Your task to perform on an android device: uninstall "File Manager" Image 0: 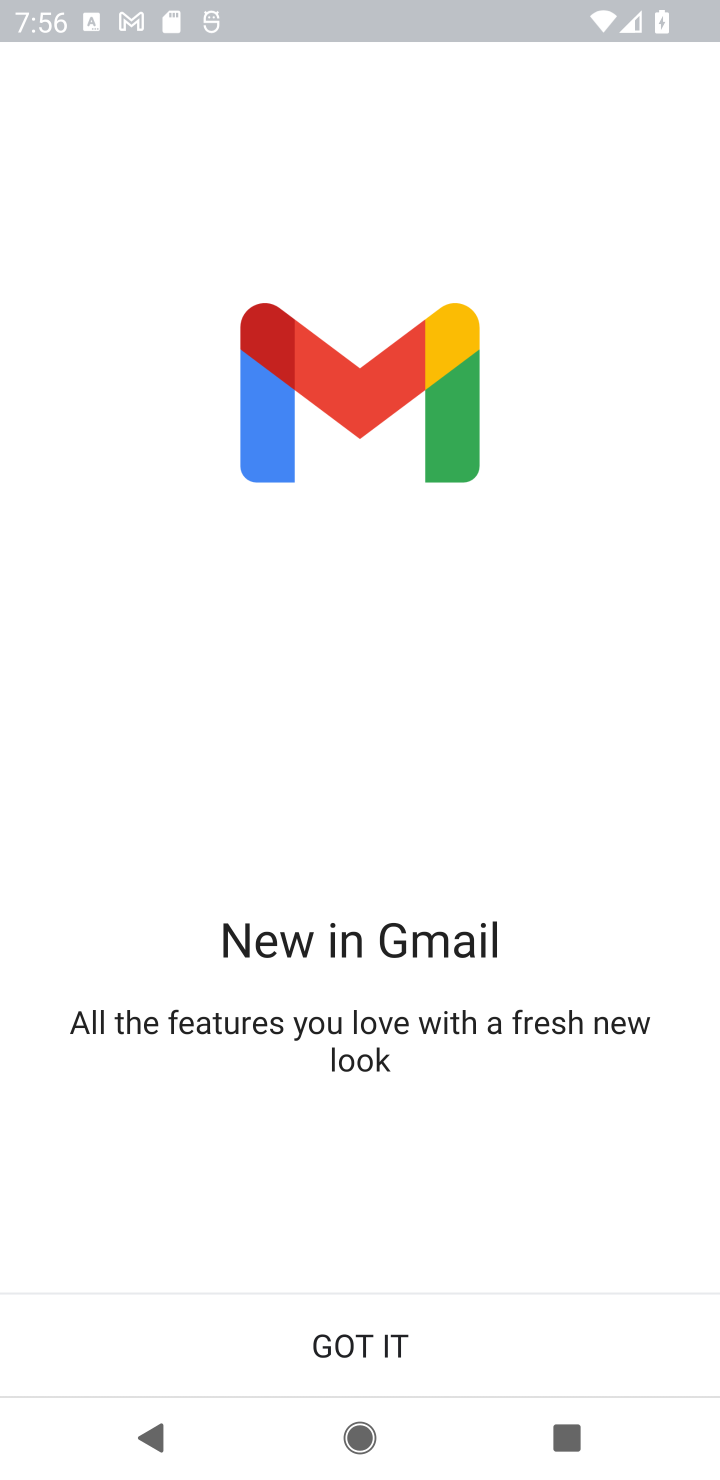
Step 0: press home button
Your task to perform on an android device: uninstall "File Manager" Image 1: 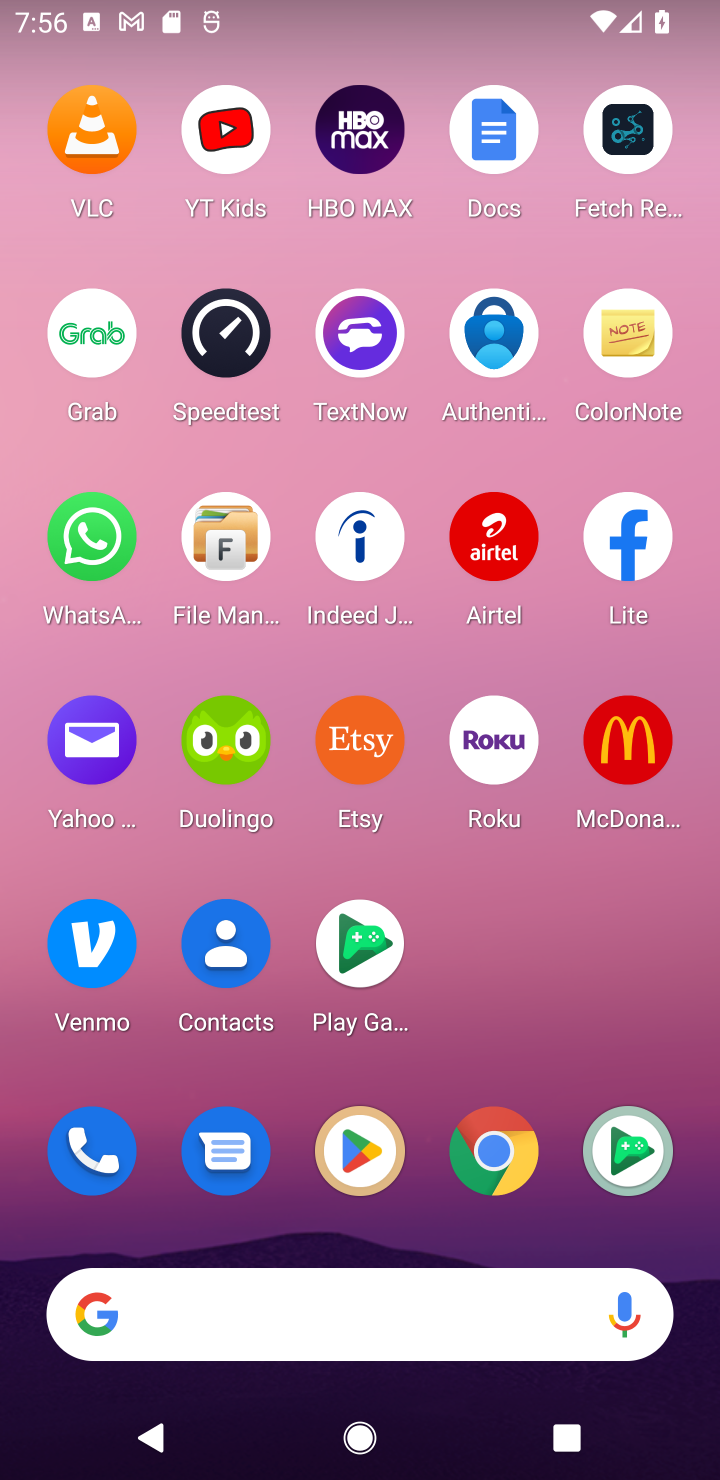
Step 1: press home button
Your task to perform on an android device: uninstall "File Manager" Image 2: 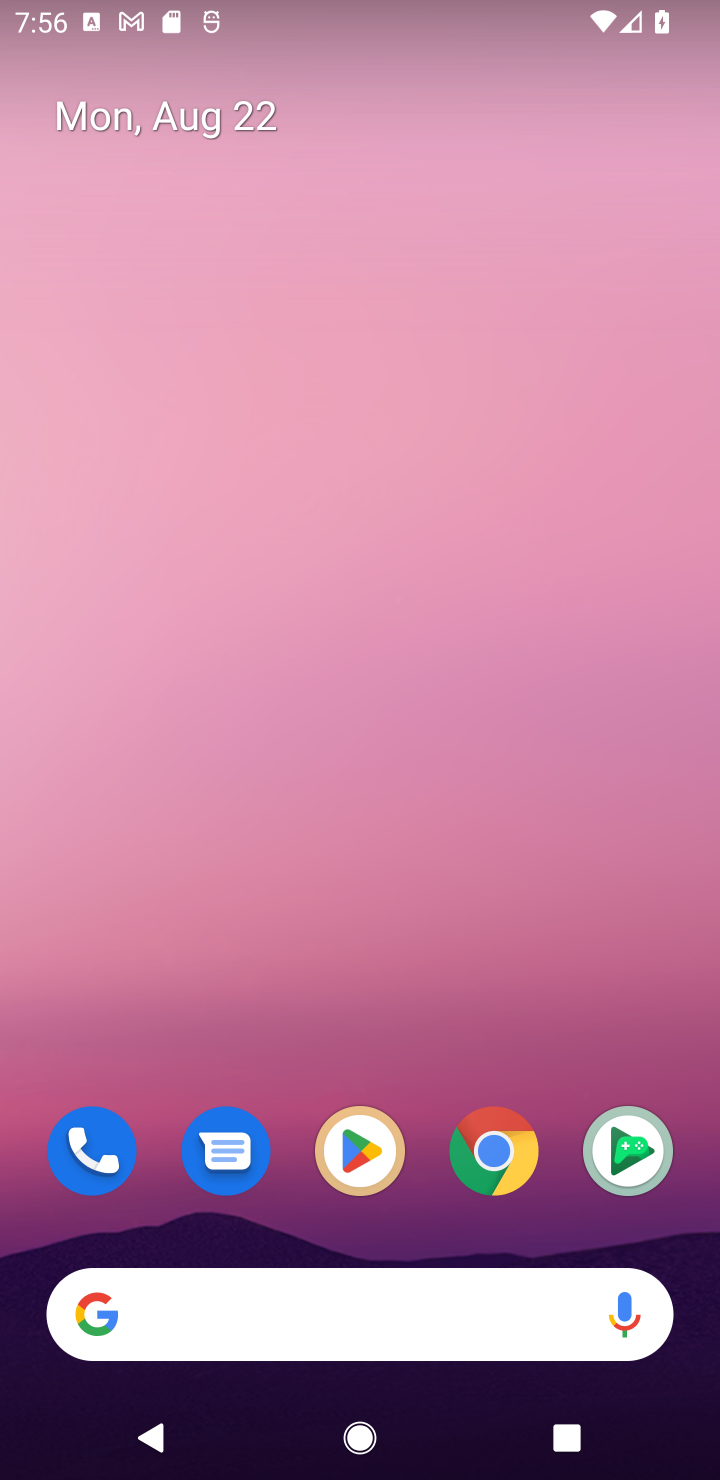
Step 2: click (349, 1145)
Your task to perform on an android device: uninstall "File Manager" Image 3: 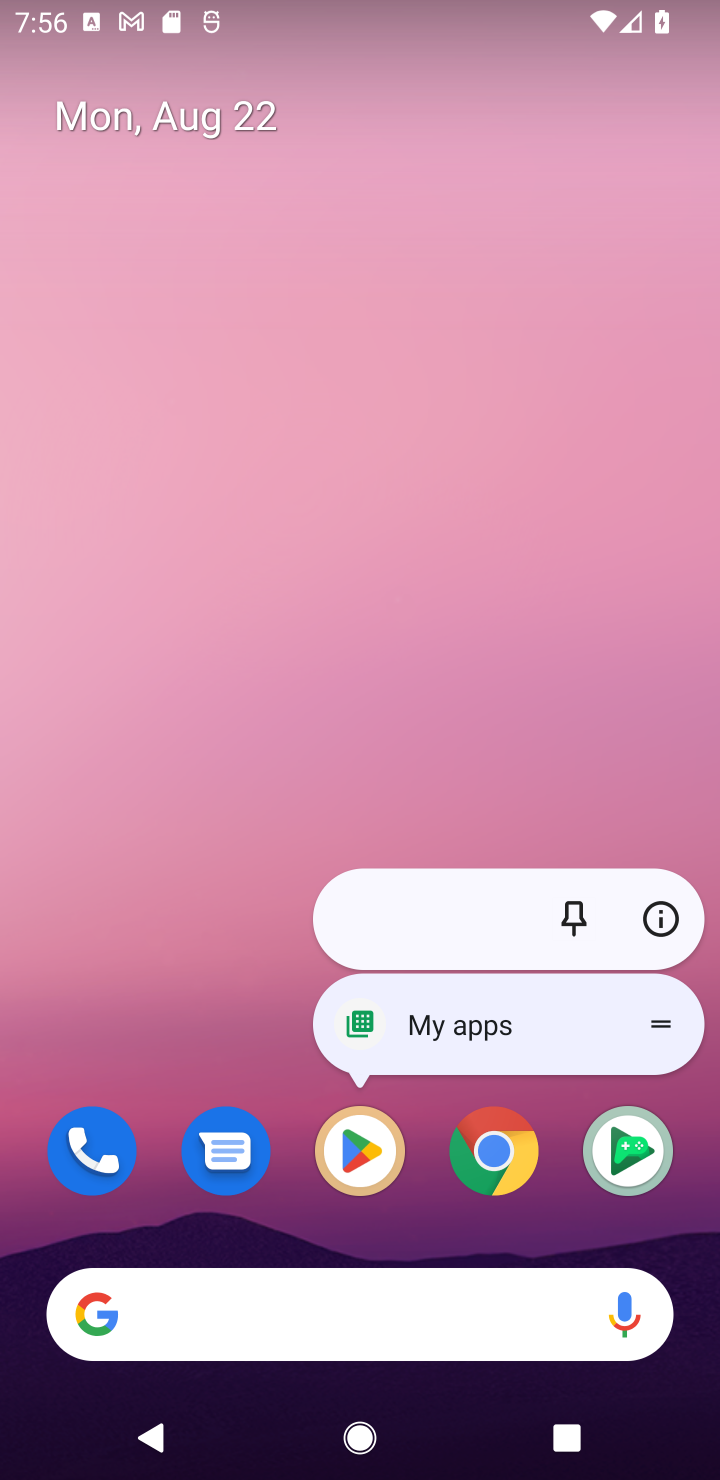
Step 3: click (359, 1165)
Your task to perform on an android device: uninstall "File Manager" Image 4: 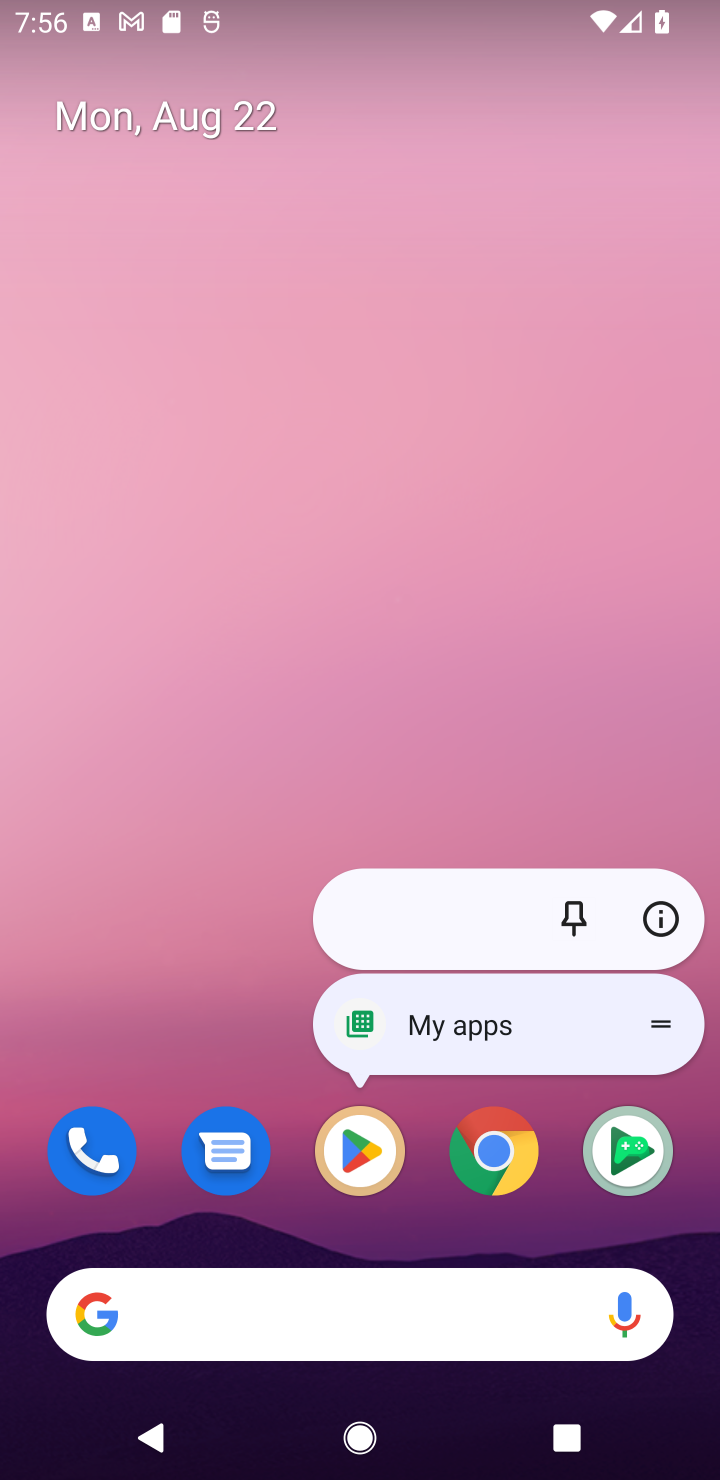
Step 4: click (359, 1170)
Your task to perform on an android device: uninstall "File Manager" Image 5: 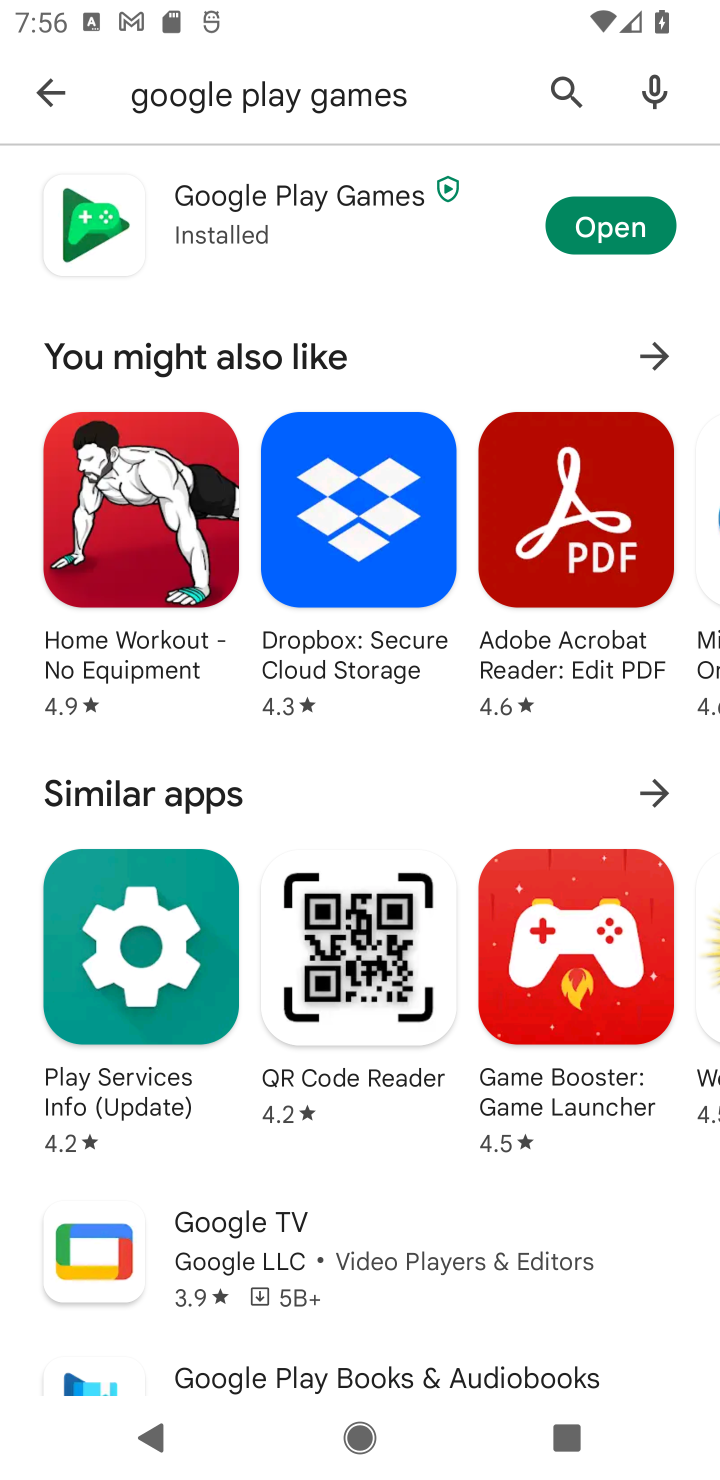
Step 5: click (556, 71)
Your task to perform on an android device: uninstall "File Manager" Image 6: 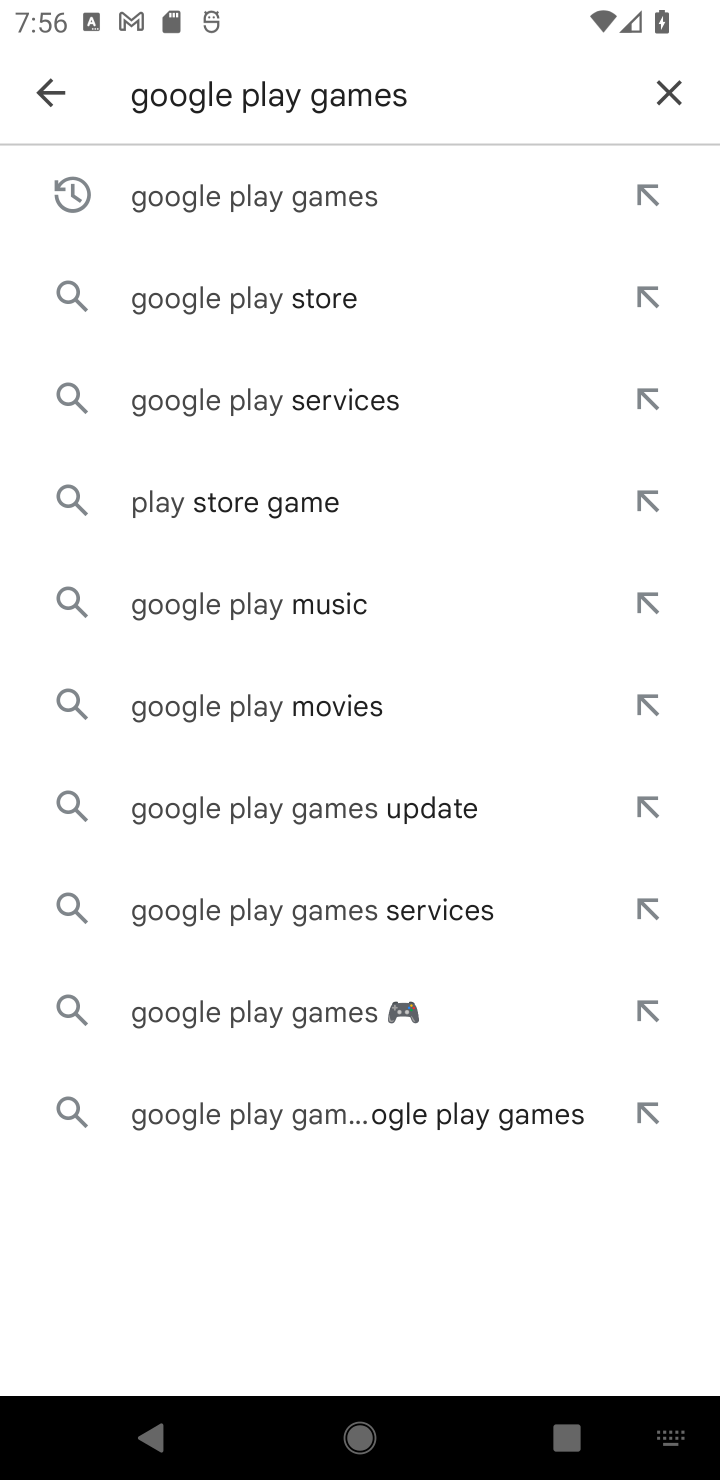
Step 6: click (659, 71)
Your task to perform on an android device: uninstall "File Manager" Image 7: 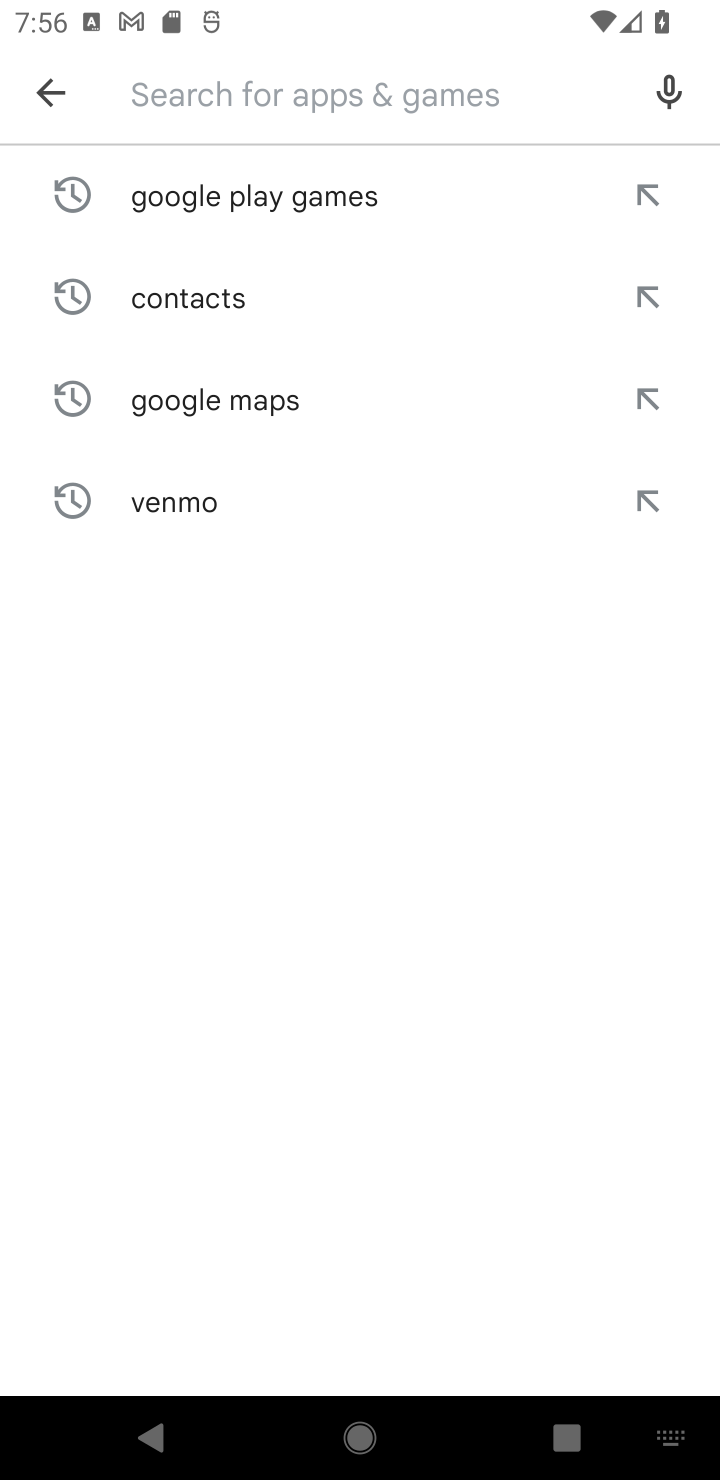
Step 7: type "File Manager"
Your task to perform on an android device: uninstall "File Manager" Image 8: 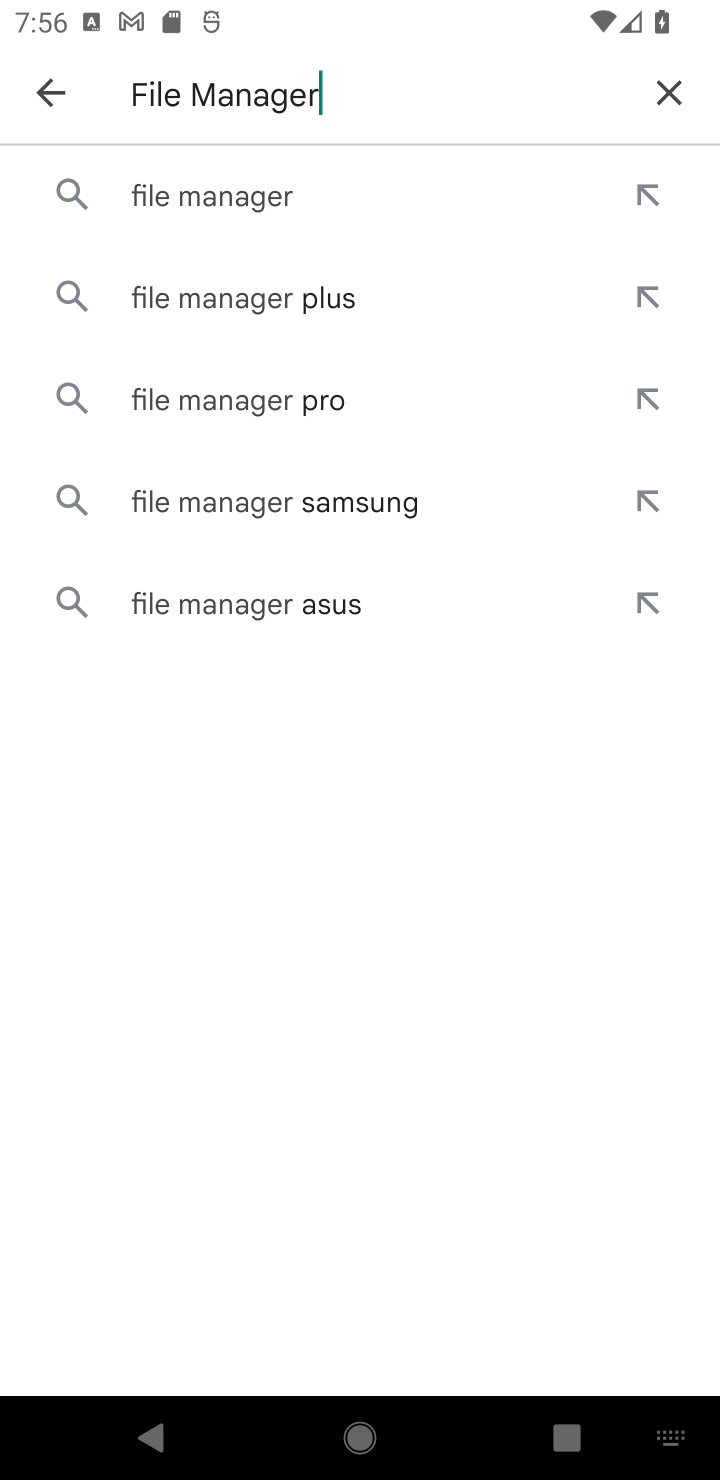
Step 8: click (281, 193)
Your task to perform on an android device: uninstall "File Manager" Image 9: 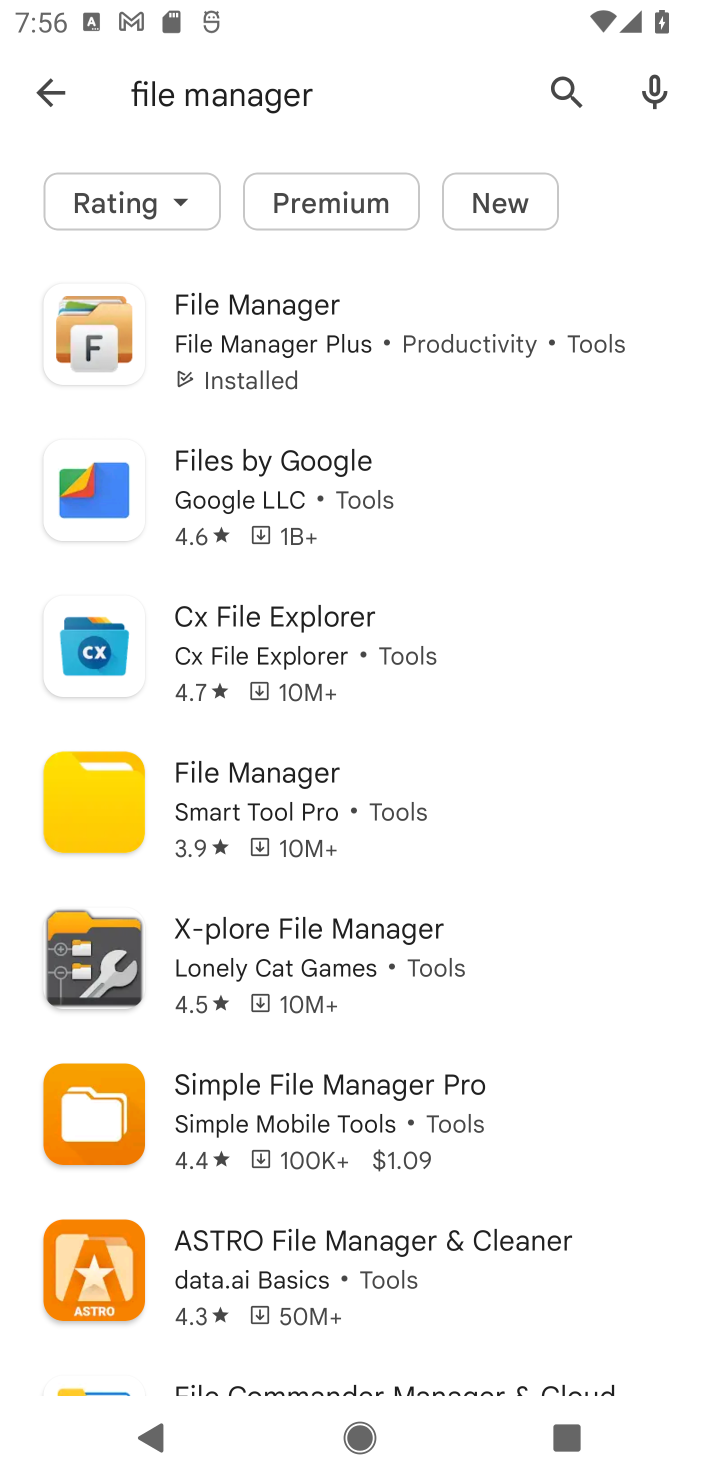
Step 9: click (253, 361)
Your task to perform on an android device: uninstall "File Manager" Image 10: 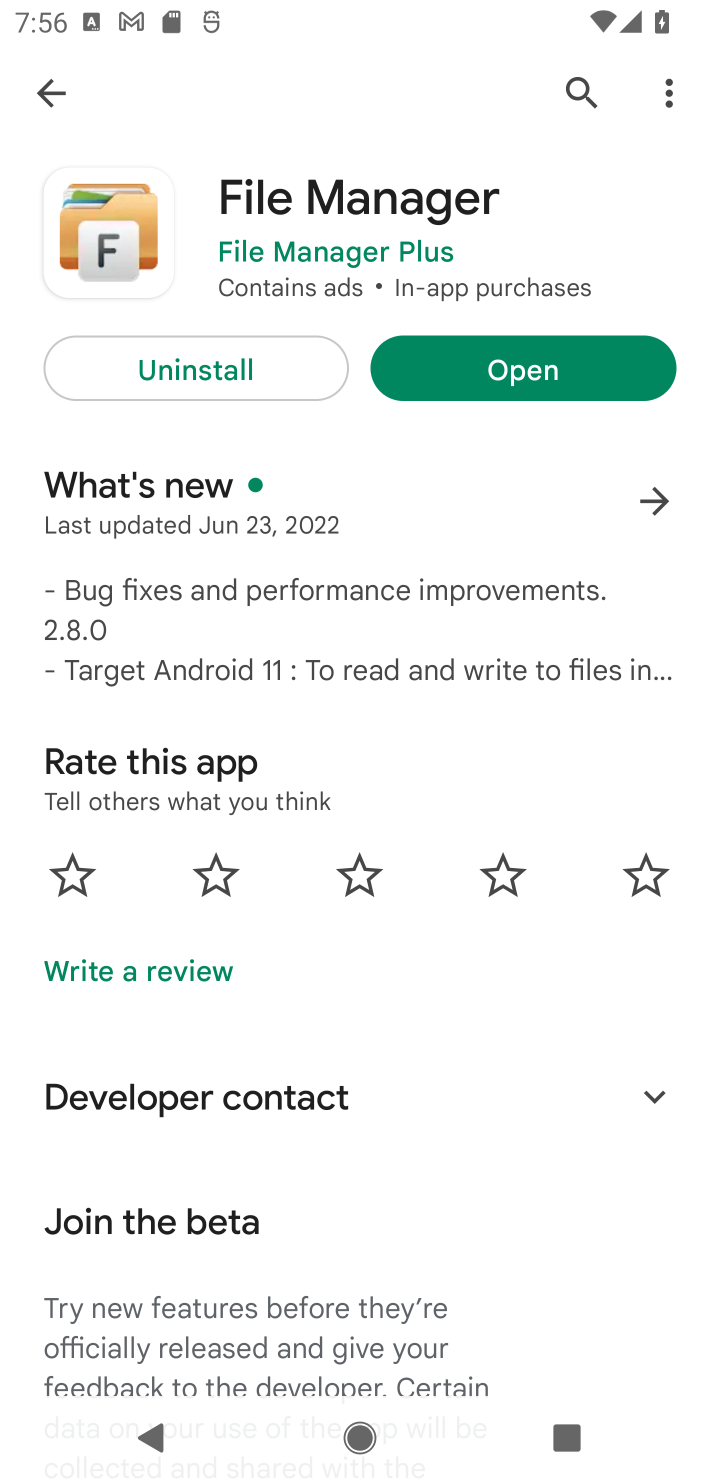
Step 10: click (215, 364)
Your task to perform on an android device: uninstall "File Manager" Image 11: 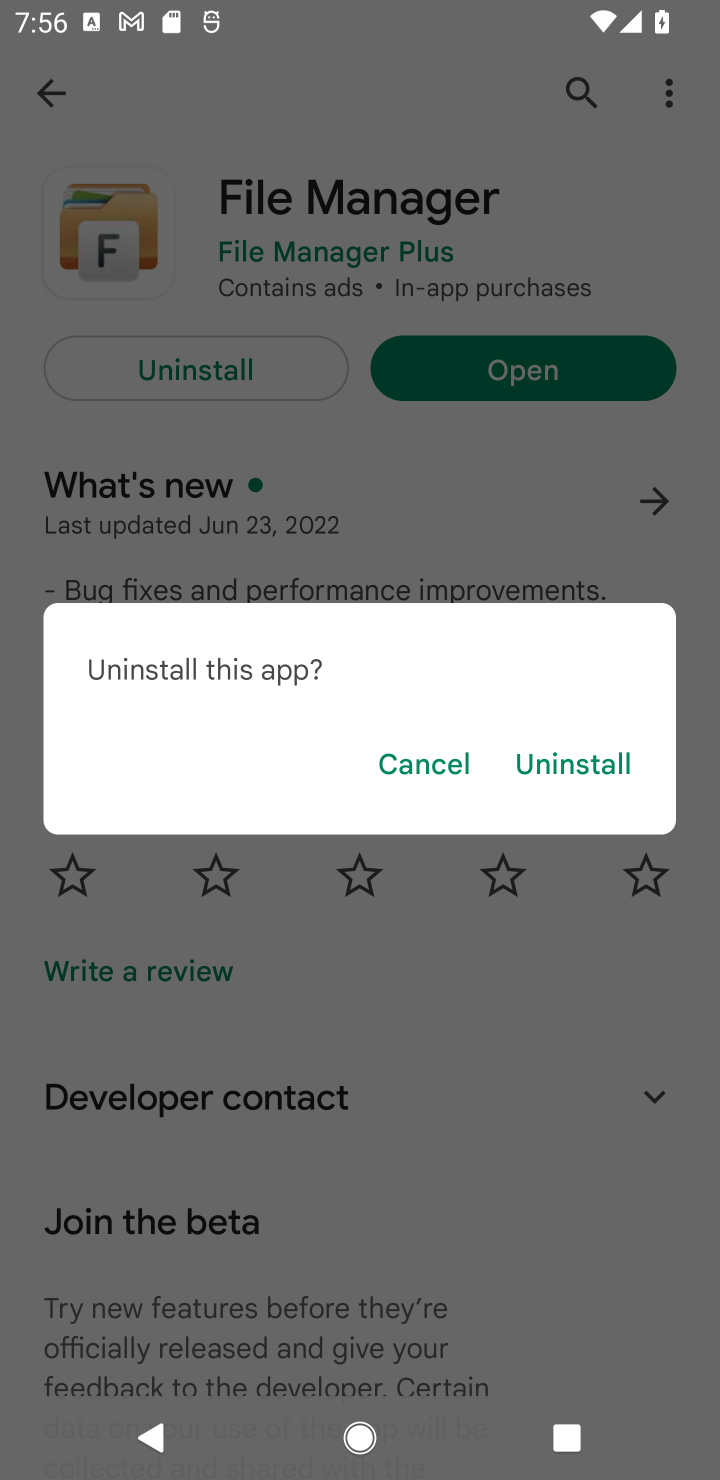
Step 11: click (568, 764)
Your task to perform on an android device: uninstall "File Manager" Image 12: 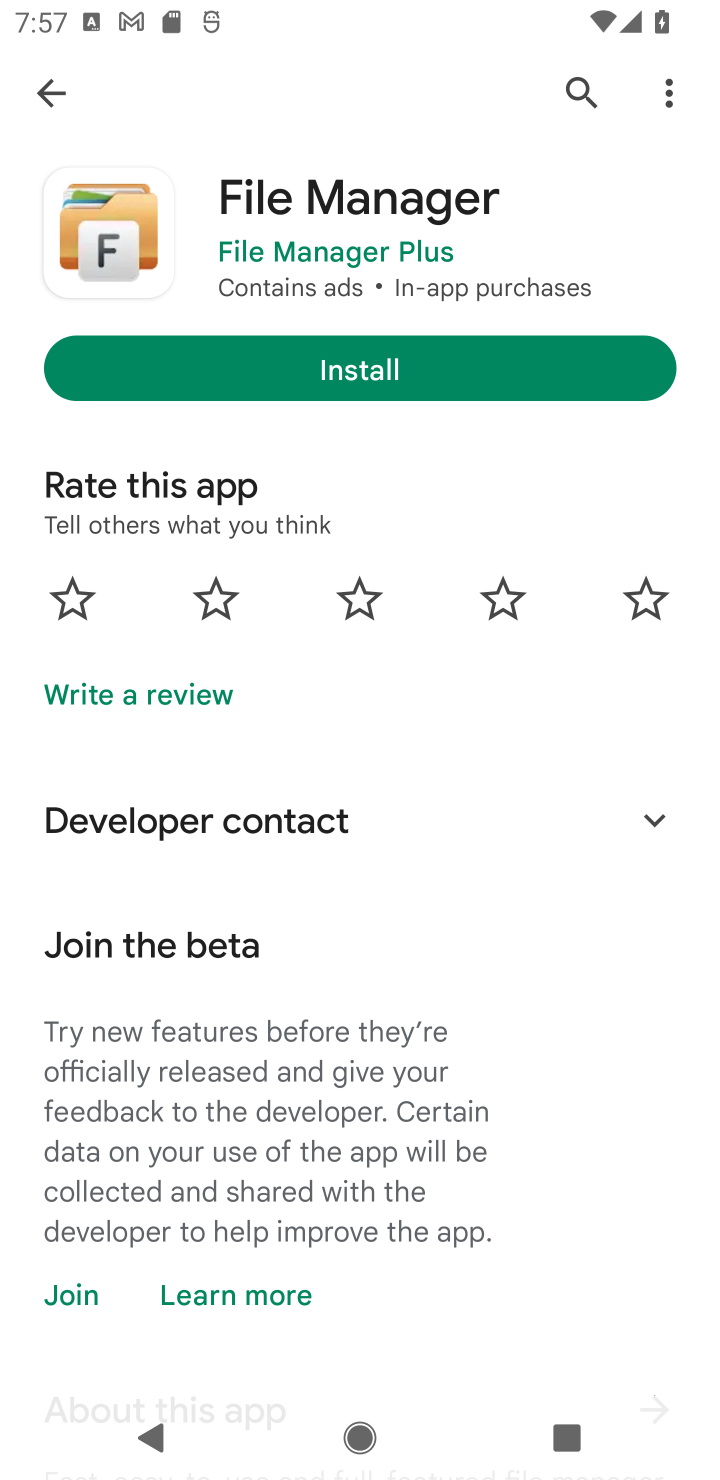
Step 12: task complete